Your task to perform on an android device: change text size in settings app Image 0: 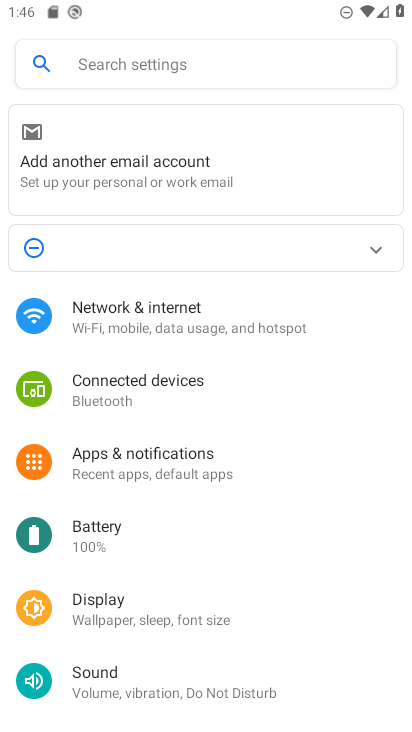
Step 0: click (172, 60)
Your task to perform on an android device: change text size in settings app Image 1: 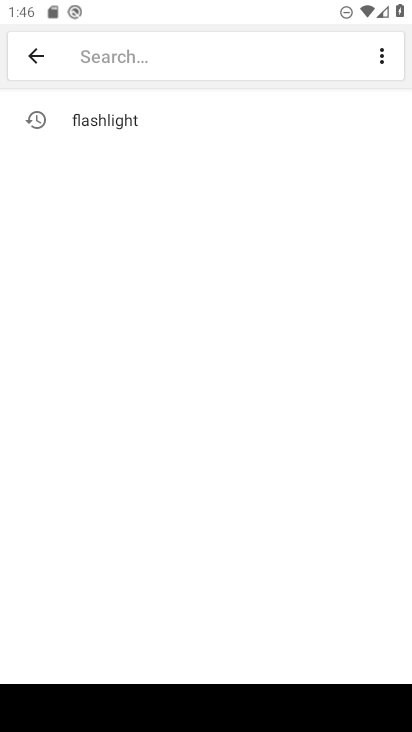
Step 1: type "text size"
Your task to perform on an android device: change text size in settings app Image 2: 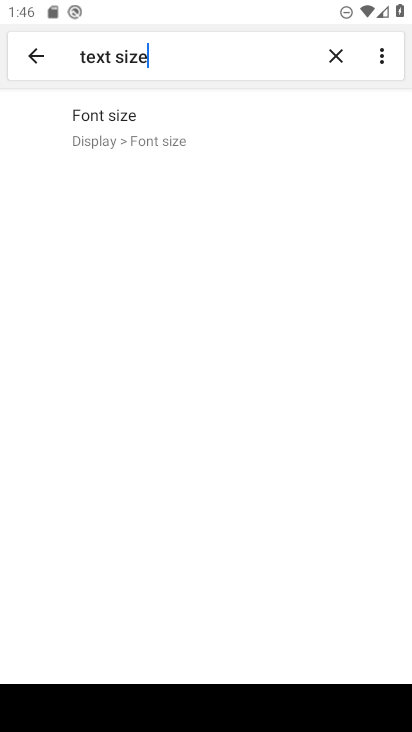
Step 2: click (162, 148)
Your task to perform on an android device: change text size in settings app Image 3: 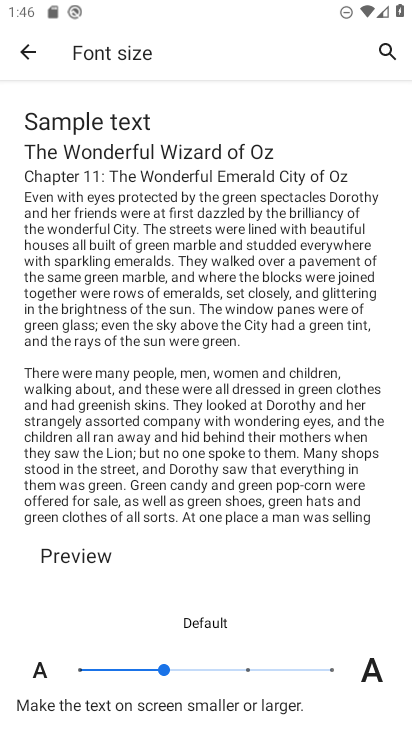
Step 3: task complete